Your task to perform on an android device: Go to Maps Image 0: 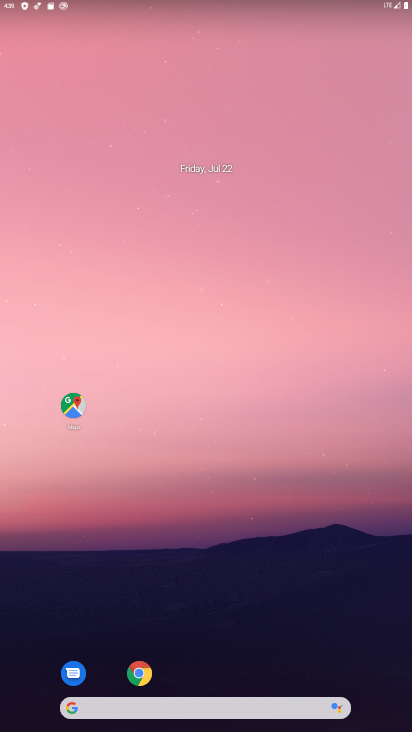
Step 0: press home button
Your task to perform on an android device: Go to Maps Image 1: 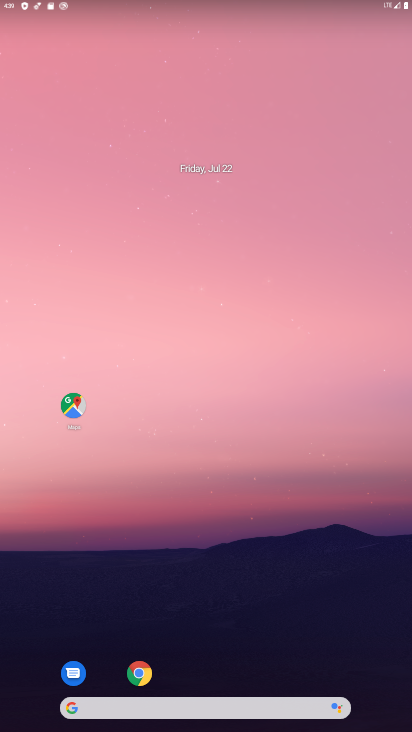
Step 1: click (65, 396)
Your task to perform on an android device: Go to Maps Image 2: 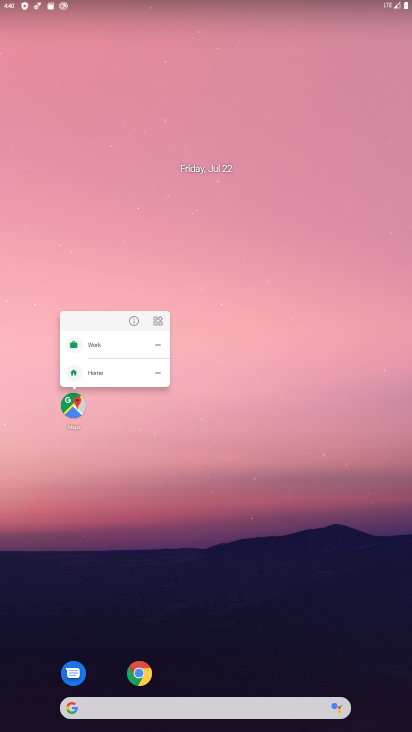
Step 2: click (71, 411)
Your task to perform on an android device: Go to Maps Image 3: 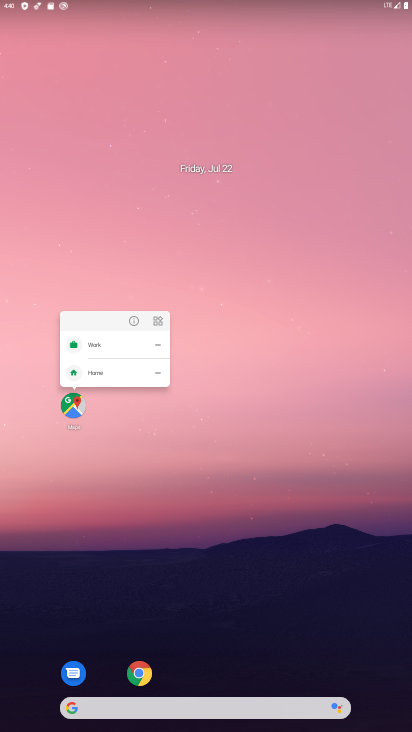
Step 3: click (69, 403)
Your task to perform on an android device: Go to Maps Image 4: 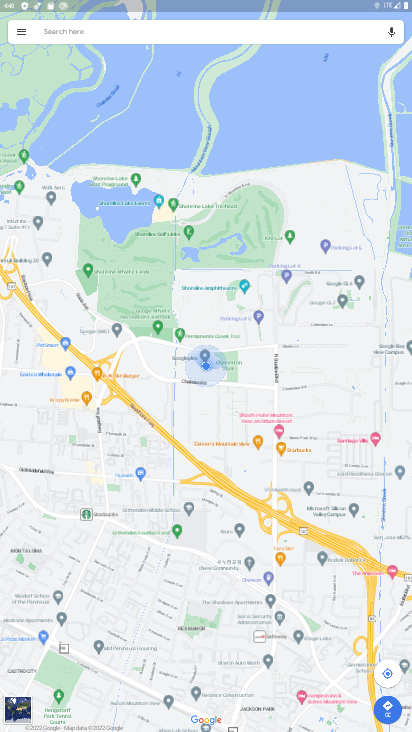
Step 4: task complete